Your task to perform on an android device: Go to Amazon Image 0: 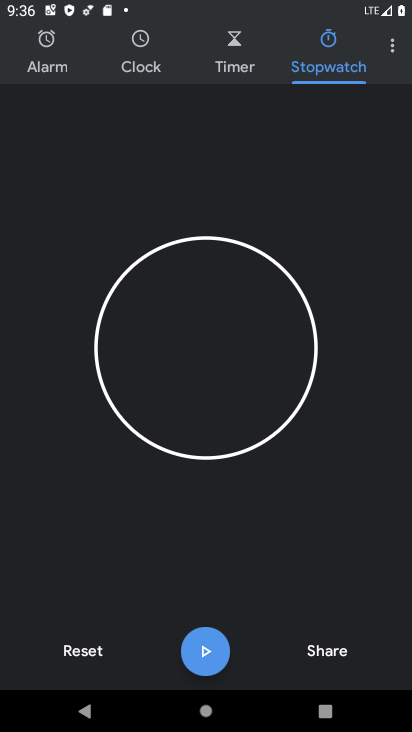
Step 0: press home button
Your task to perform on an android device: Go to Amazon Image 1: 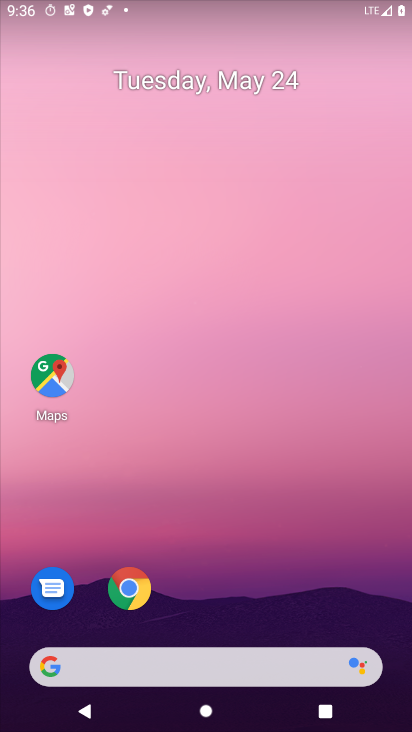
Step 1: click (125, 580)
Your task to perform on an android device: Go to Amazon Image 2: 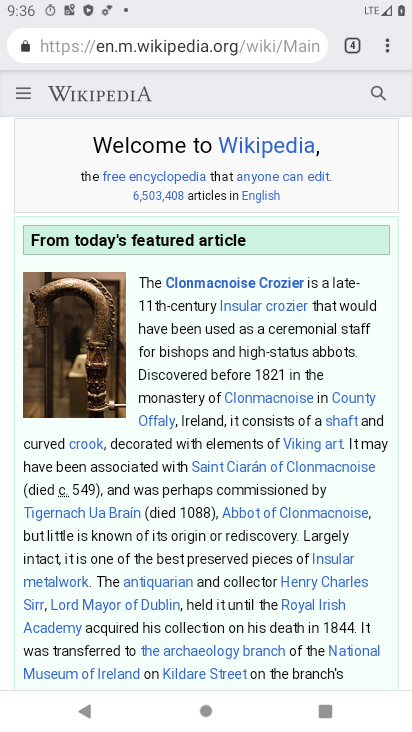
Step 2: click (350, 41)
Your task to perform on an android device: Go to Amazon Image 3: 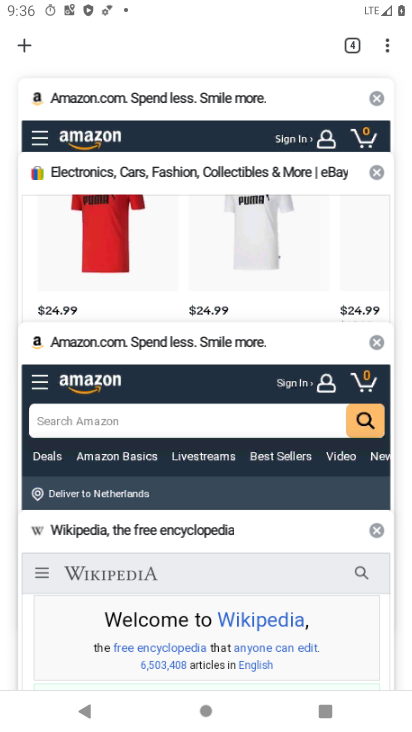
Step 3: click (138, 148)
Your task to perform on an android device: Go to Amazon Image 4: 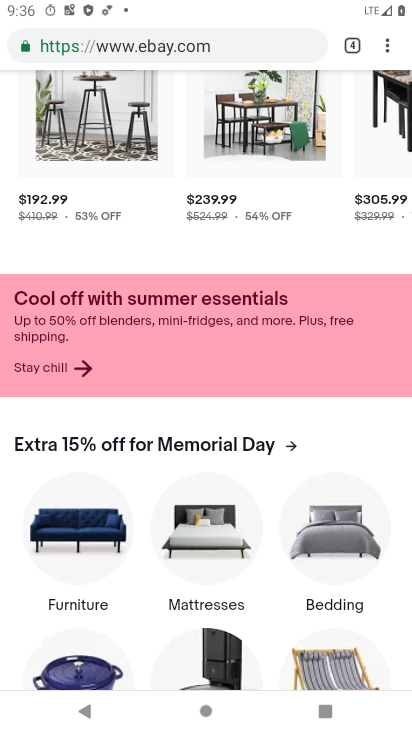
Step 4: click (356, 50)
Your task to perform on an android device: Go to Amazon Image 5: 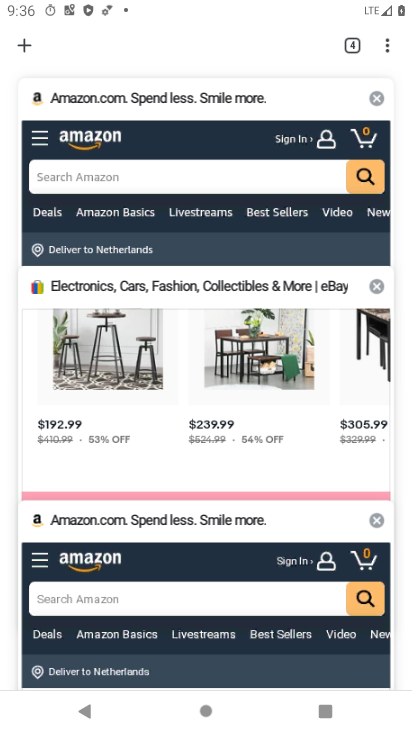
Step 5: click (128, 98)
Your task to perform on an android device: Go to Amazon Image 6: 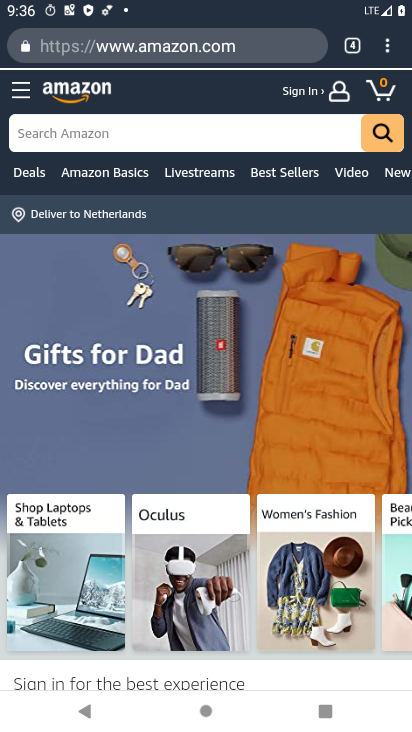
Step 6: task complete